Your task to perform on an android device: What's the weather going to be tomorrow? Image 0: 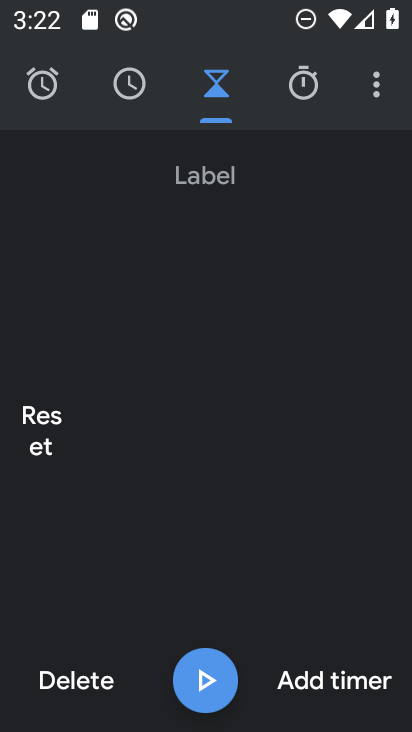
Step 0: press home button
Your task to perform on an android device: What's the weather going to be tomorrow? Image 1: 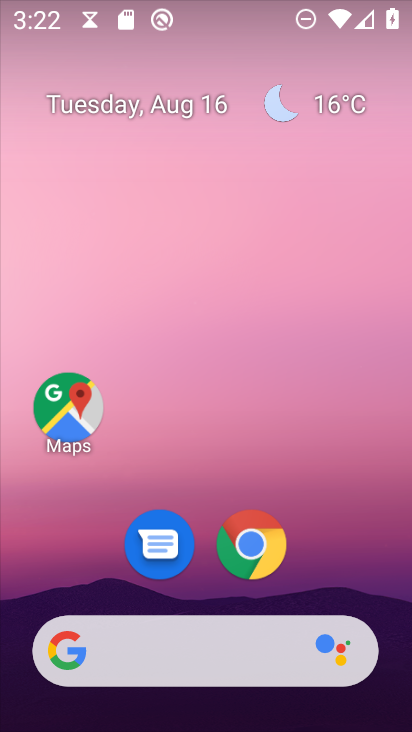
Step 1: drag from (176, 652) to (303, 227)
Your task to perform on an android device: What's the weather going to be tomorrow? Image 2: 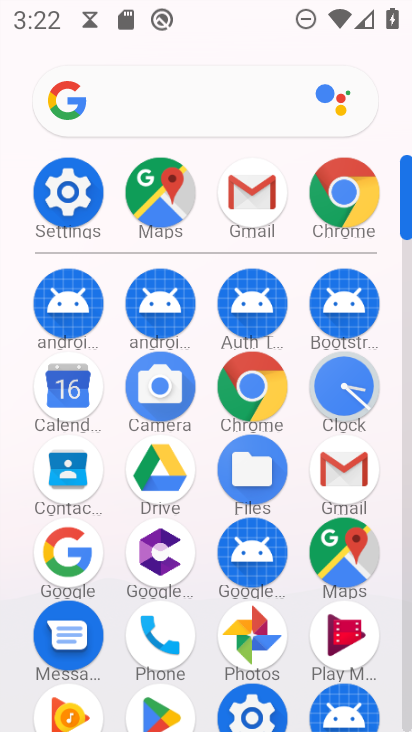
Step 2: click (60, 552)
Your task to perform on an android device: What's the weather going to be tomorrow? Image 3: 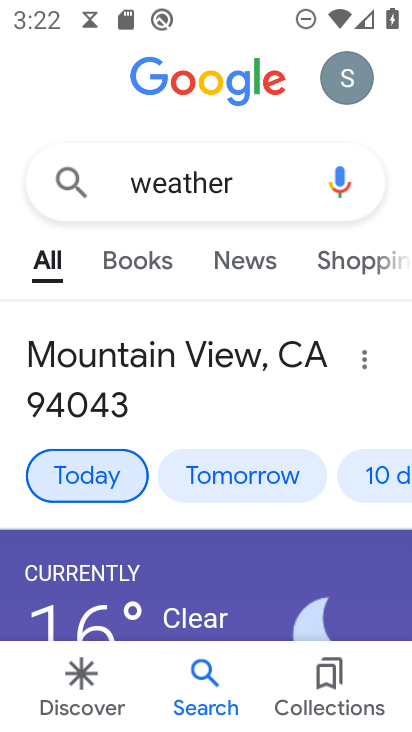
Step 3: click (261, 189)
Your task to perform on an android device: What's the weather going to be tomorrow? Image 4: 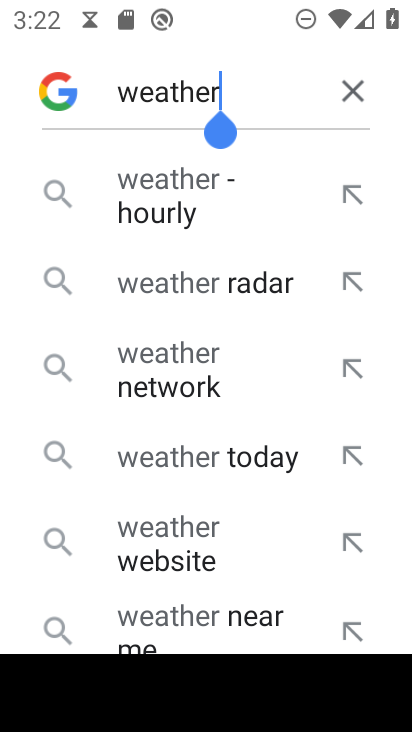
Step 4: click (354, 91)
Your task to perform on an android device: What's the weather going to be tomorrow? Image 5: 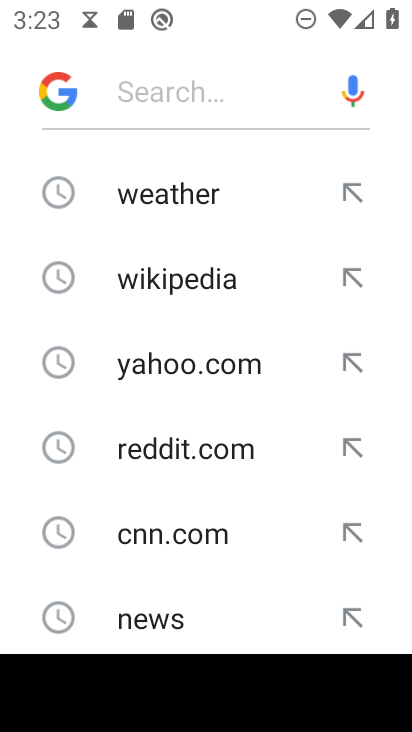
Step 5: type "What's the weather going to be tomorrow?"
Your task to perform on an android device: What's the weather going to be tomorrow? Image 6: 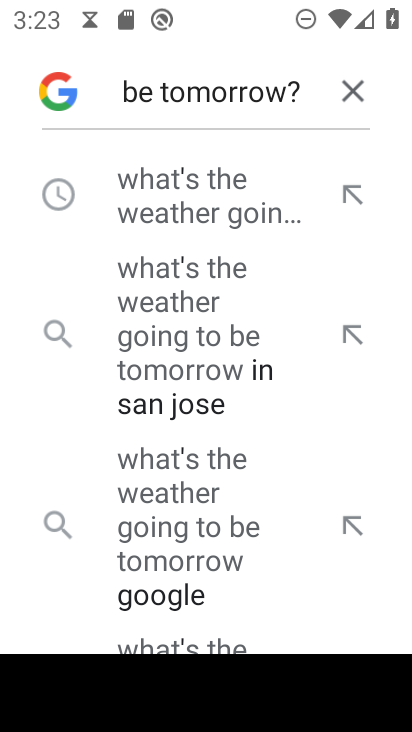
Step 6: click (163, 222)
Your task to perform on an android device: What's the weather going to be tomorrow? Image 7: 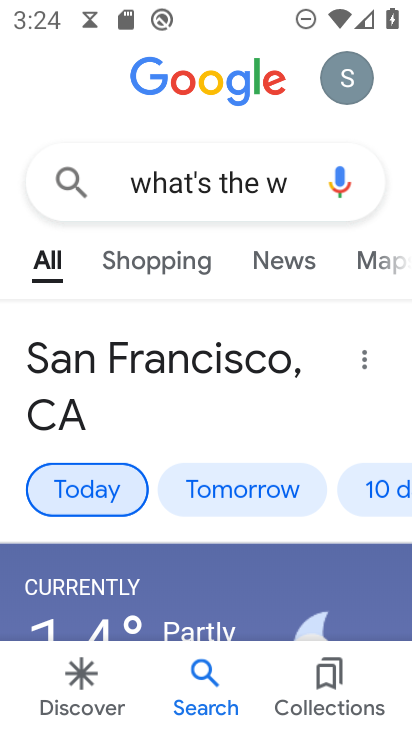
Step 7: click (246, 489)
Your task to perform on an android device: What's the weather going to be tomorrow? Image 8: 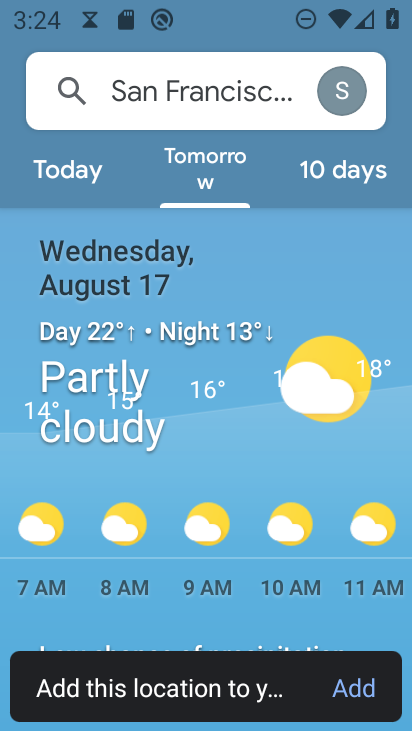
Step 8: task complete